Your task to perform on an android device: Show me popular videos on Youtube Image 0: 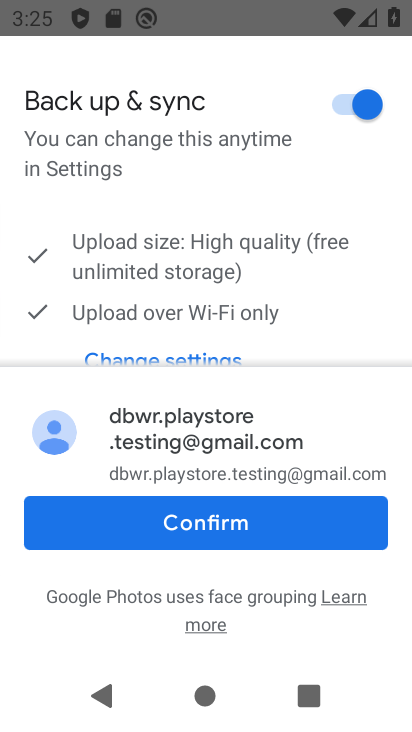
Step 0: drag from (208, 563) to (233, 126)
Your task to perform on an android device: Show me popular videos on Youtube Image 1: 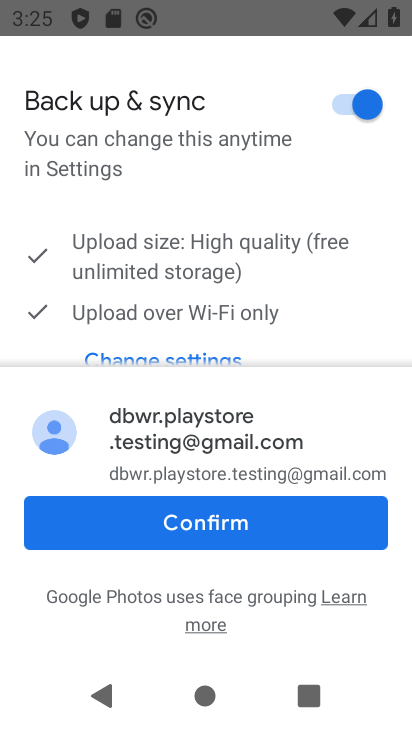
Step 1: press home button
Your task to perform on an android device: Show me popular videos on Youtube Image 2: 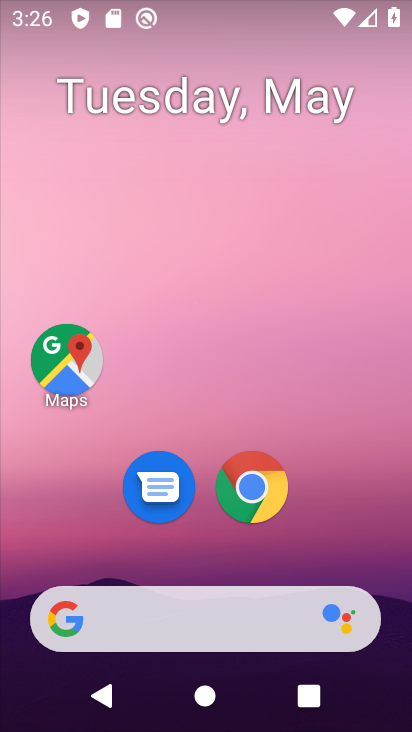
Step 2: drag from (202, 550) to (191, 178)
Your task to perform on an android device: Show me popular videos on Youtube Image 3: 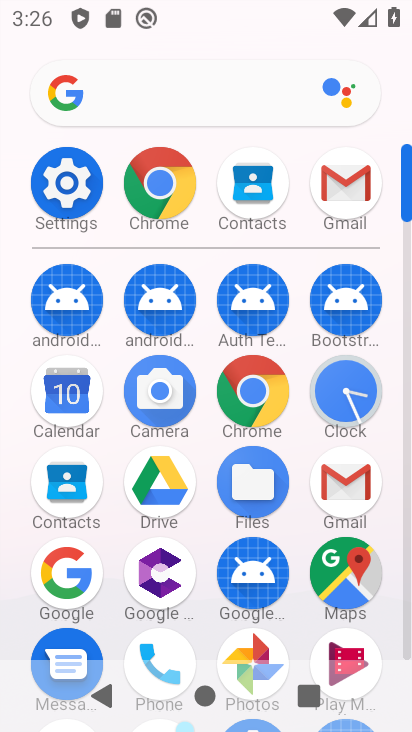
Step 3: drag from (201, 531) to (213, 160)
Your task to perform on an android device: Show me popular videos on Youtube Image 4: 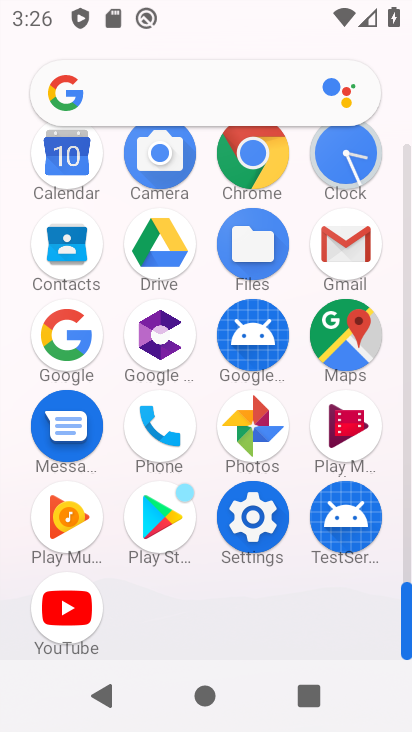
Step 4: click (64, 603)
Your task to perform on an android device: Show me popular videos on Youtube Image 5: 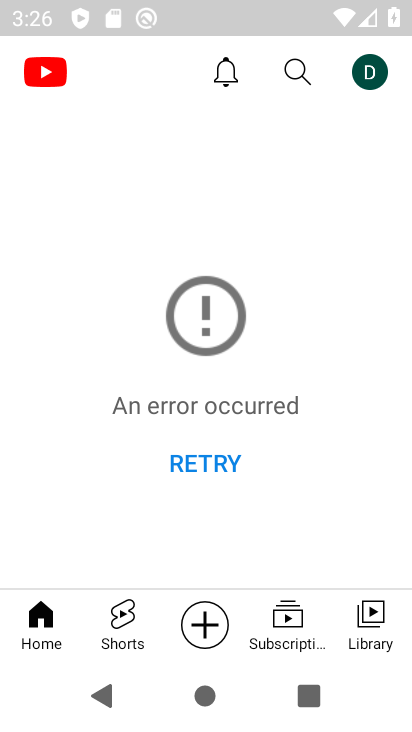
Step 5: drag from (135, 519) to (146, 214)
Your task to perform on an android device: Show me popular videos on Youtube Image 6: 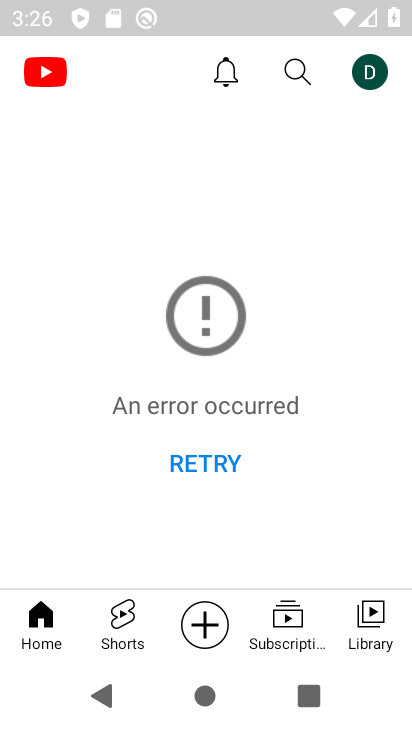
Step 6: click (368, 626)
Your task to perform on an android device: Show me popular videos on Youtube Image 7: 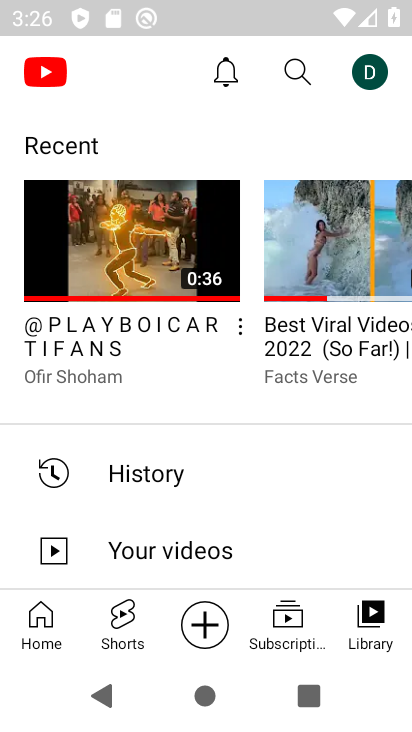
Step 7: click (37, 617)
Your task to perform on an android device: Show me popular videos on Youtube Image 8: 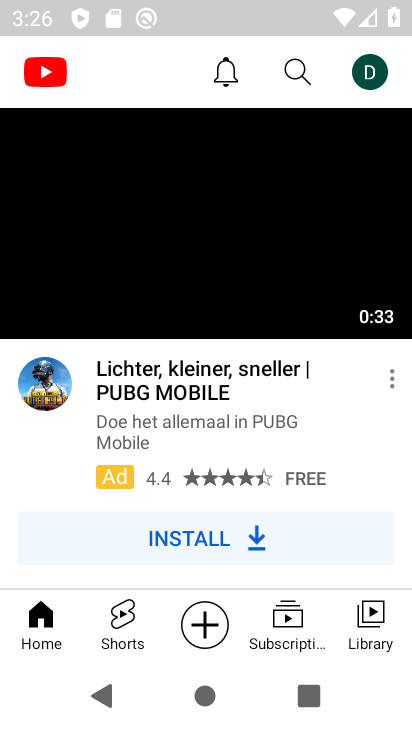
Step 8: click (89, 133)
Your task to perform on an android device: Show me popular videos on Youtube Image 9: 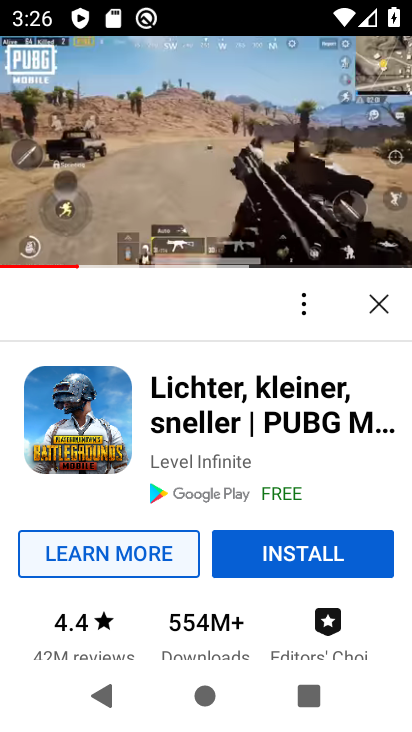
Step 9: press back button
Your task to perform on an android device: Show me popular videos on Youtube Image 10: 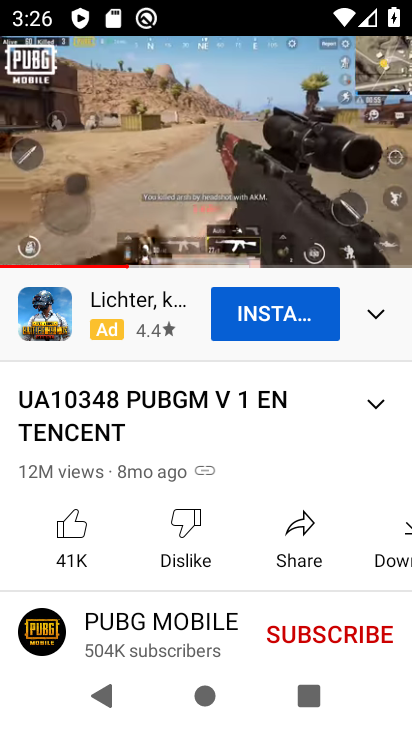
Step 10: press back button
Your task to perform on an android device: Show me popular videos on Youtube Image 11: 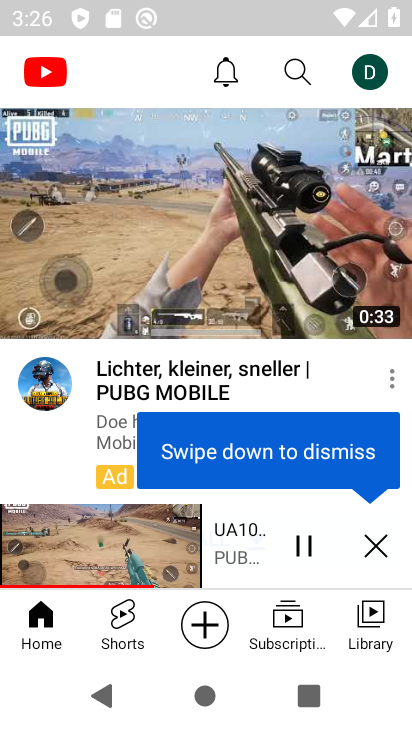
Step 11: click (376, 548)
Your task to perform on an android device: Show me popular videos on Youtube Image 12: 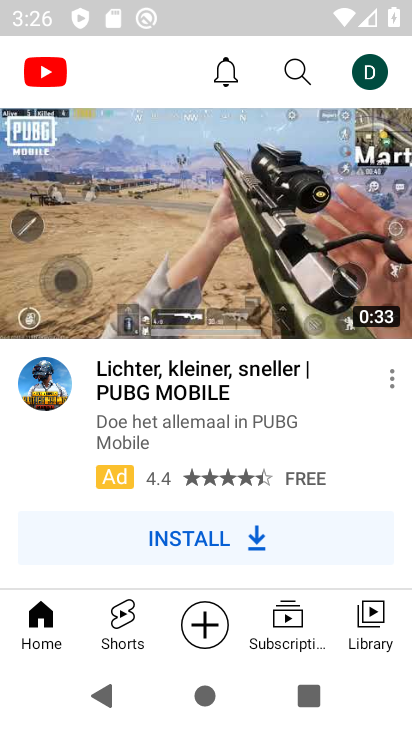
Step 12: drag from (121, 492) to (142, 156)
Your task to perform on an android device: Show me popular videos on Youtube Image 13: 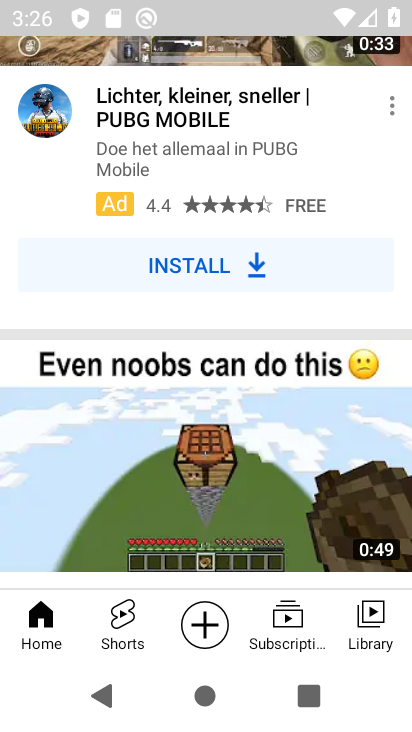
Step 13: drag from (118, 524) to (136, 187)
Your task to perform on an android device: Show me popular videos on Youtube Image 14: 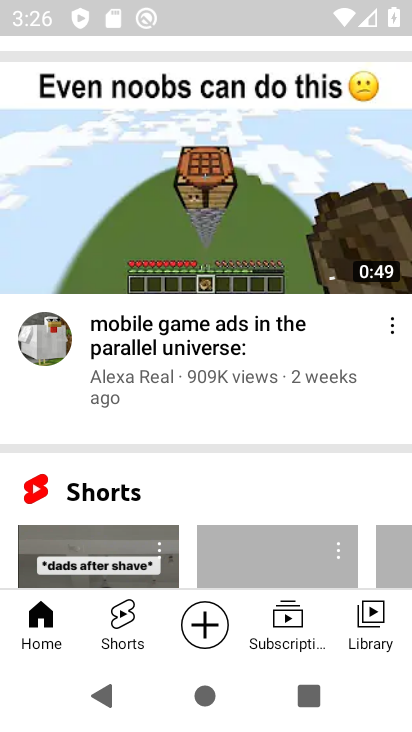
Step 14: drag from (168, 303) to (172, 552)
Your task to perform on an android device: Show me popular videos on Youtube Image 15: 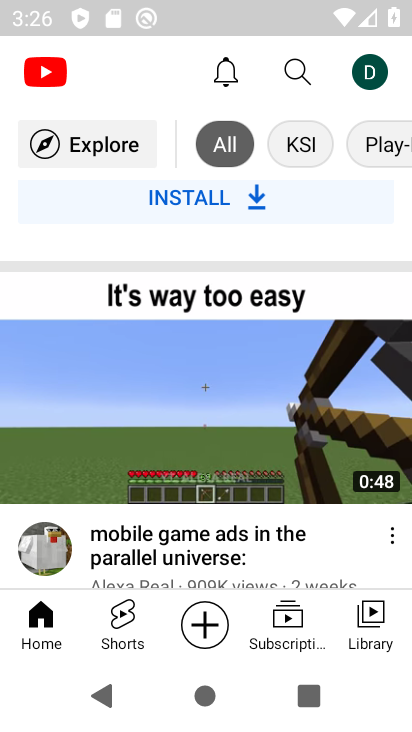
Step 15: click (80, 133)
Your task to perform on an android device: Show me popular videos on Youtube Image 16: 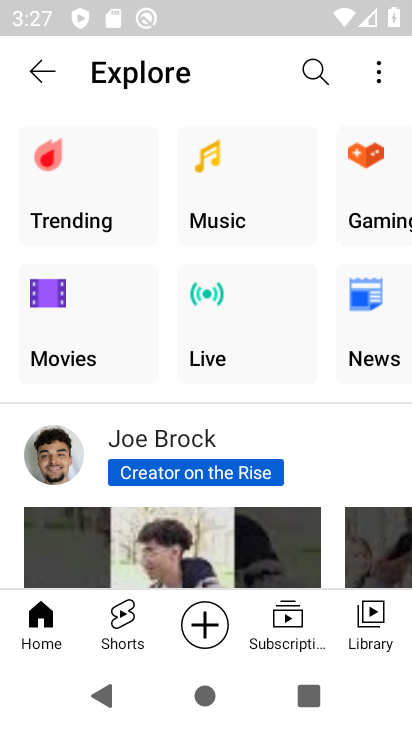
Step 16: click (73, 155)
Your task to perform on an android device: Show me popular videos on Youtube Image 17: 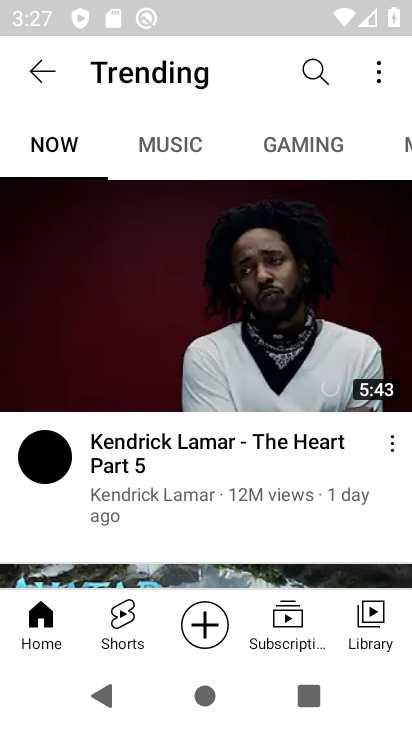
Step 17: task complete